Your task to perform on an android device: Show me recent news Image 0: 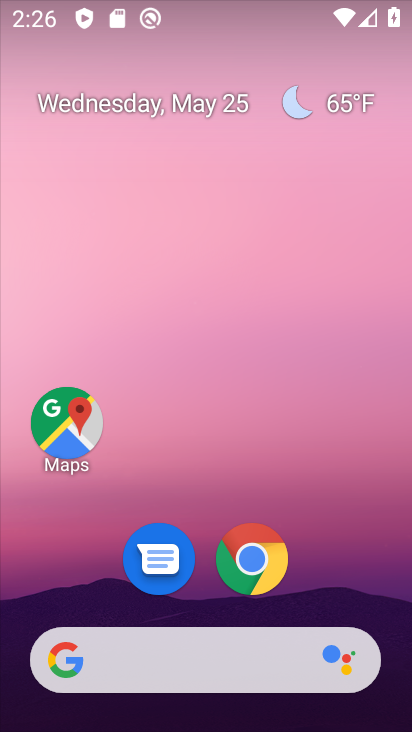
Step 0: drag from (351, 603) to (309, 133)
Your task to perform on an android device: Show me recent news Image 1: 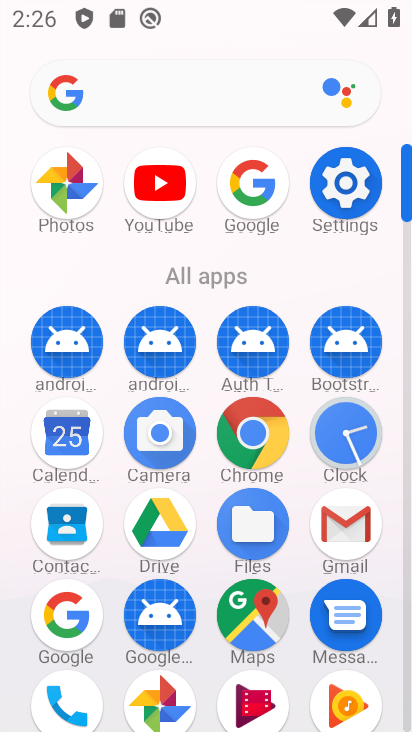
Step 1: drag from (69, 606) to (100, 206)
Your task to perform on an android device: Show me recent news Image 2: 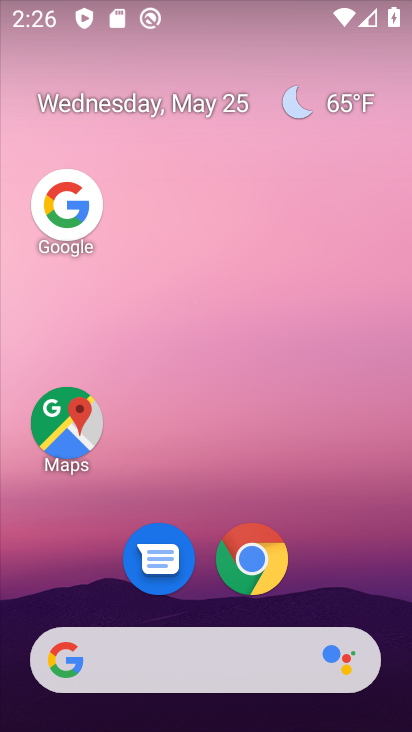
Step 2: click (77, 208)
Your task to perform on an android device: Show me recent news Image 3: 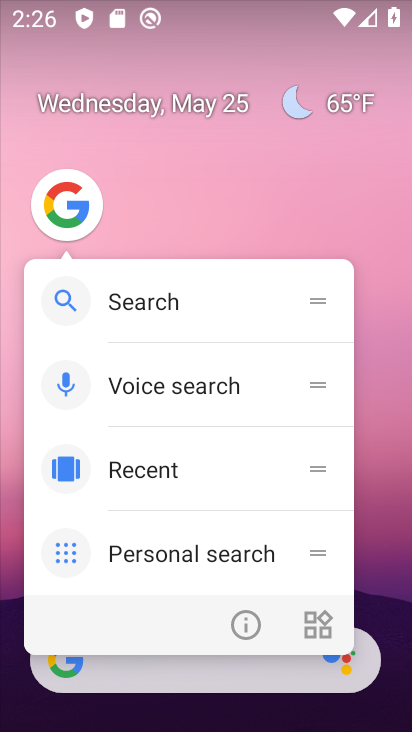
Step 3: click (87, 204)
Your task to perform on an android device: Show me recent news Image 4: 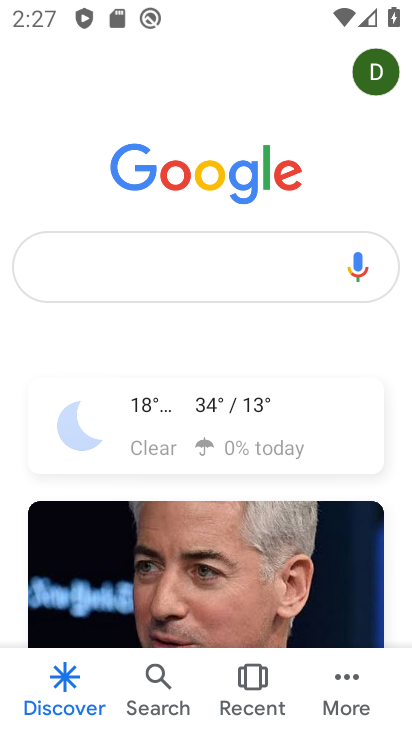
Step 4: click (194, 267)
Your task to perform on an android device: Show me recent news Image 5: 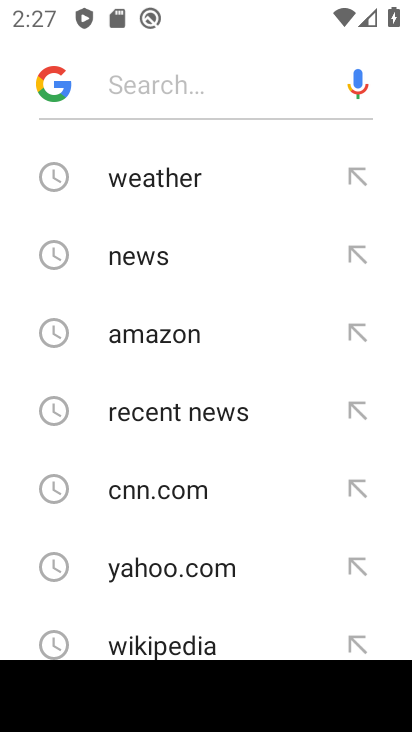
Step 5: click (202, 409)
Your task to perform on an android device: Show me recent news Image 6: 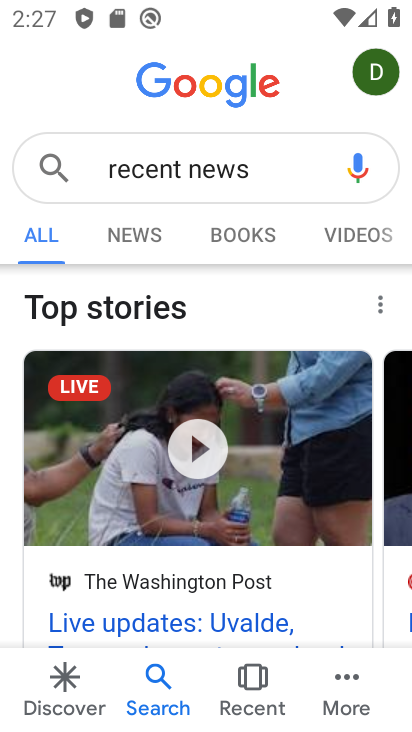
Step 6: task complete